Your task to perform on an android device: turn off smart reply in the gmail app Image 0: 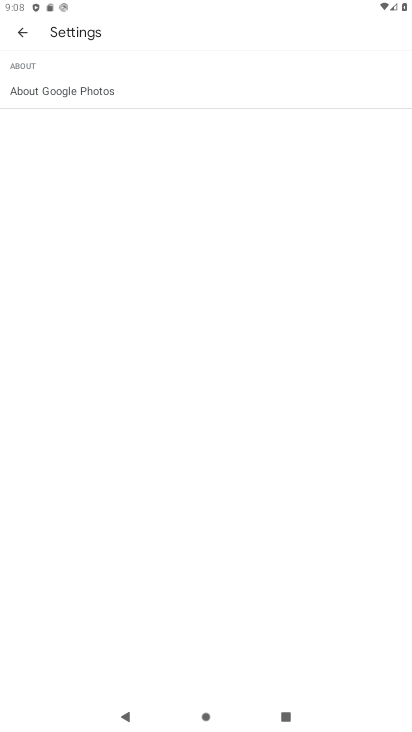
Step 0: task complete